Your task to perform on an android device: move a message to another label in the gmail app Image 0: 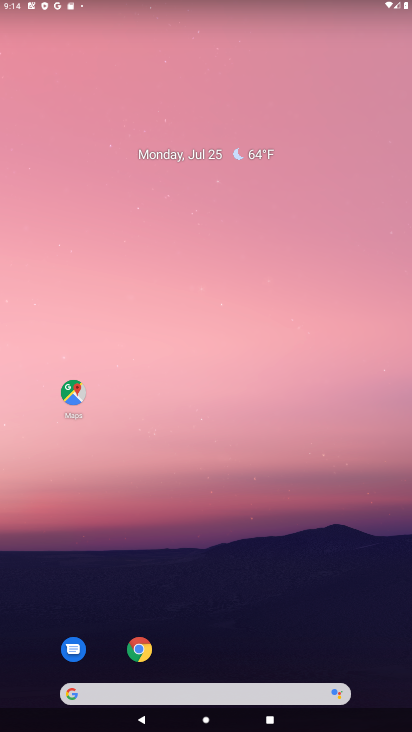
Step 0: drag from (334, 593) to (138, 13)
Your task to perform on an android device: move a message to another label in the gmail app Image 1: 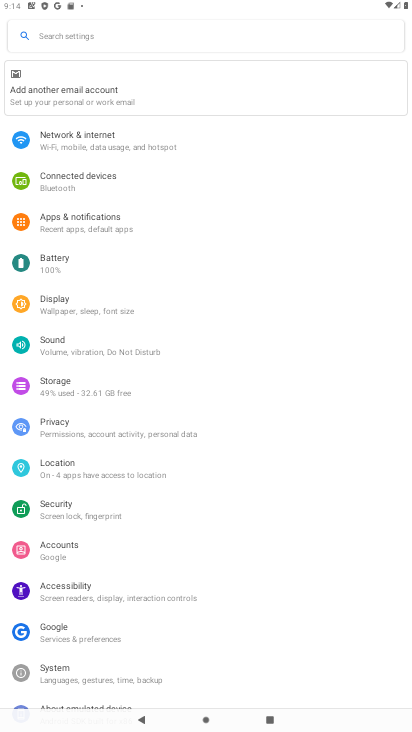
Step 1: press home button
Your task to perform on an android device: move a message to another label in the gmail app Image 2: 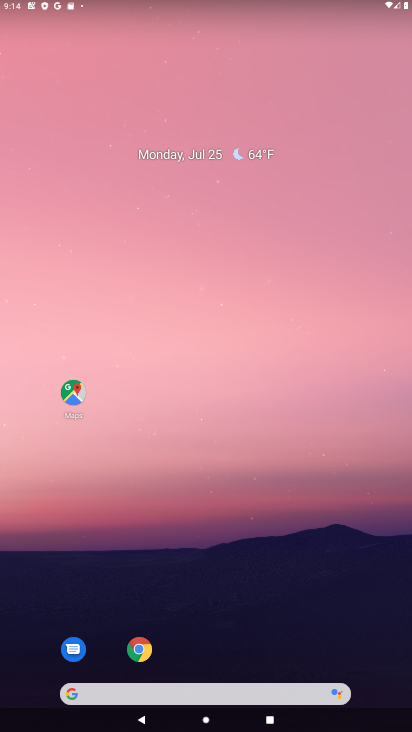
Step 2: drag from (348, 518) to (249, 16)
Your task to perform on an android device: move a message to another label in the gmail app Image 3: 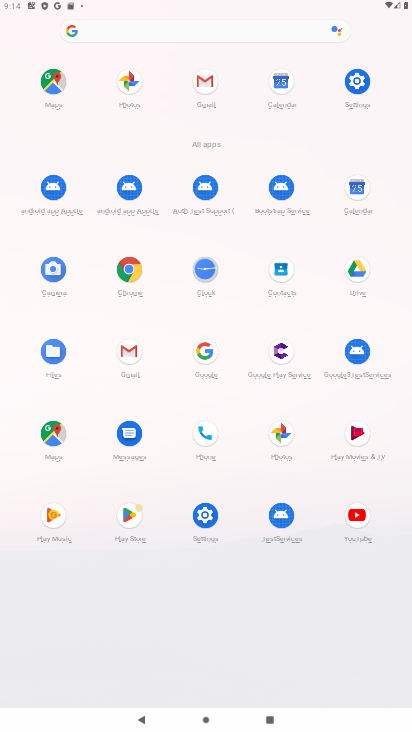
Step 3: click (132, 351)
Your task to perform on an android device: move a message to another label in the gmail app Image 4: 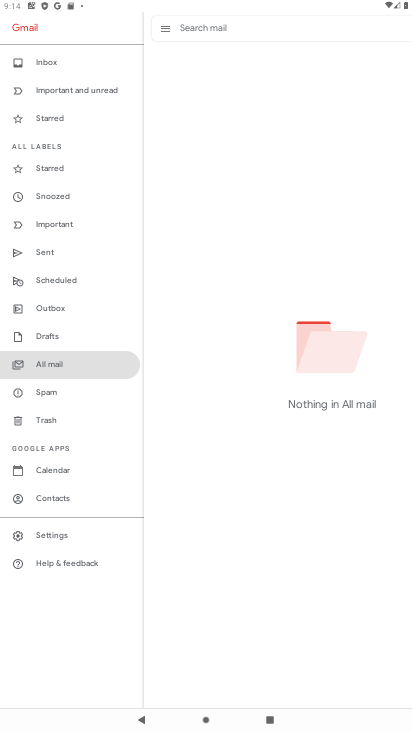
Step 4: task complete